Your task to perform on an android device: change notifications settings Image 0: 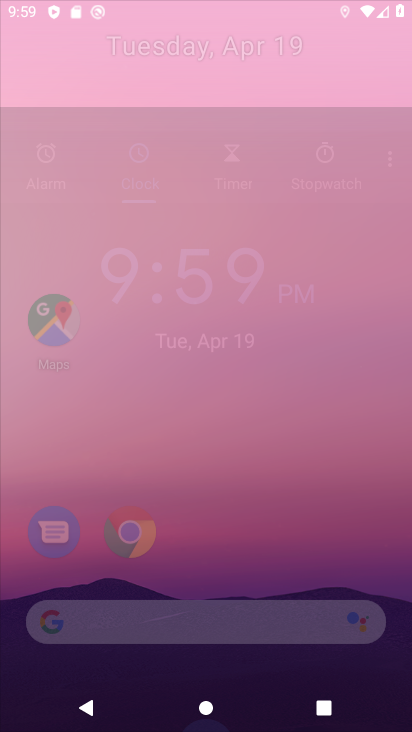
Step 0: drag from (375, 518) to (120, 83)
Your task to perform on an android device: change notifications settings Image 1: 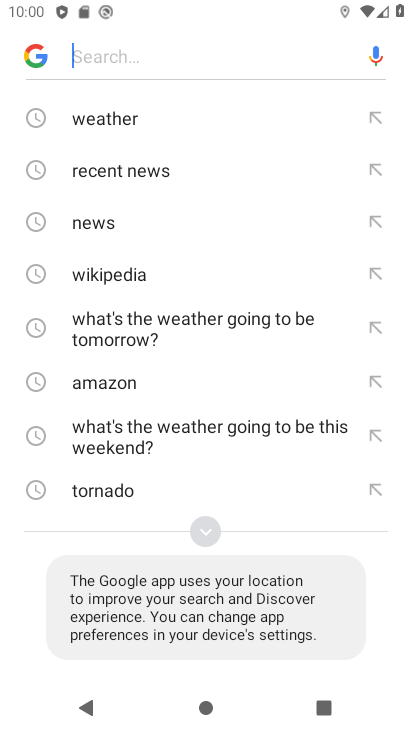
Step 1: press home button
Your task to perform on an android device: change notifications settings Image 2: 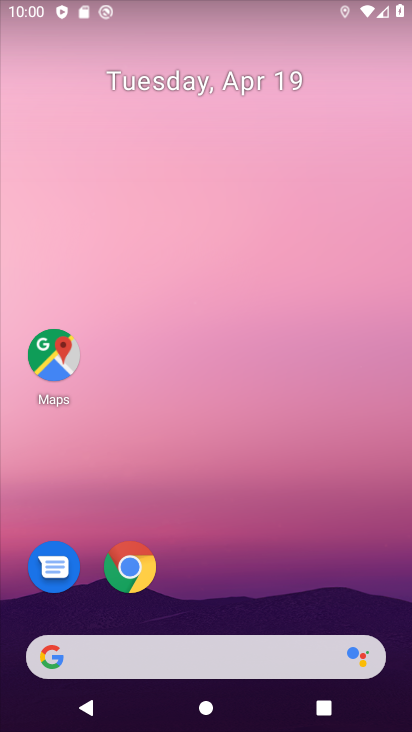
Step 2: drag from (268, 576) to (253, 153)
Your task to perform on an android device: change notifications settings Image 3: 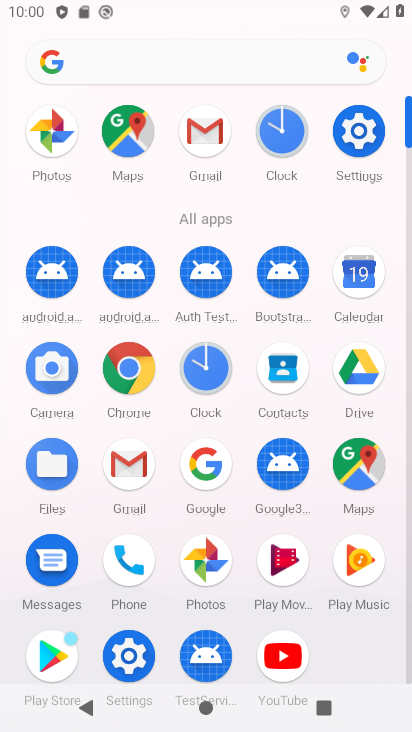
Step 3: click (354, 130)
Your task to perform on an android device: change notifications settings Image 4: 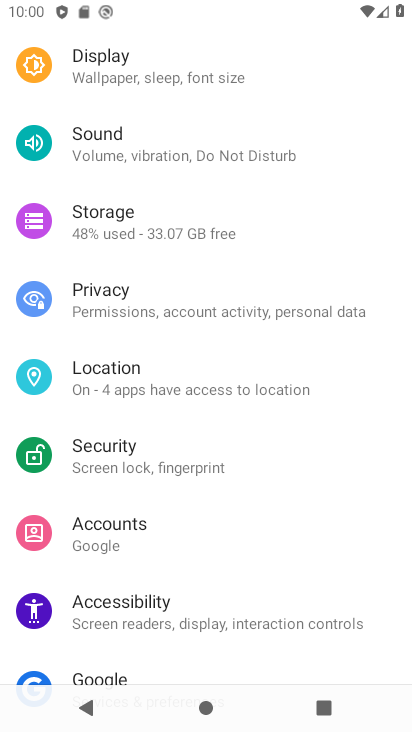
Step 4: drag from (336, 153) to (298, 627)
Your task to perform on an android device: change notifications settings Image 5: 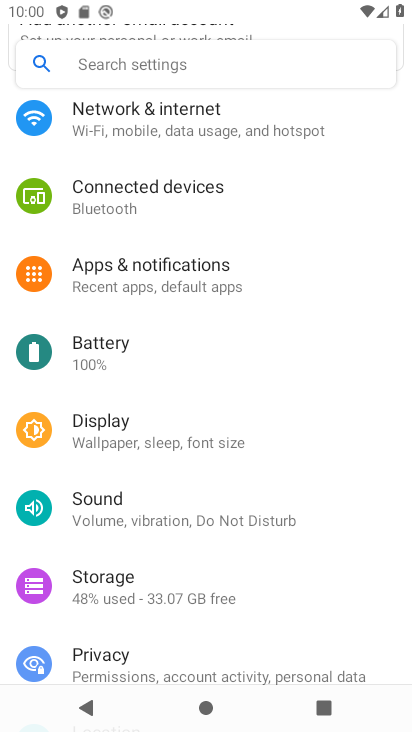
Step 5: click (255, 266)
Your task to perform on an android device: change notifications settings Image 6: 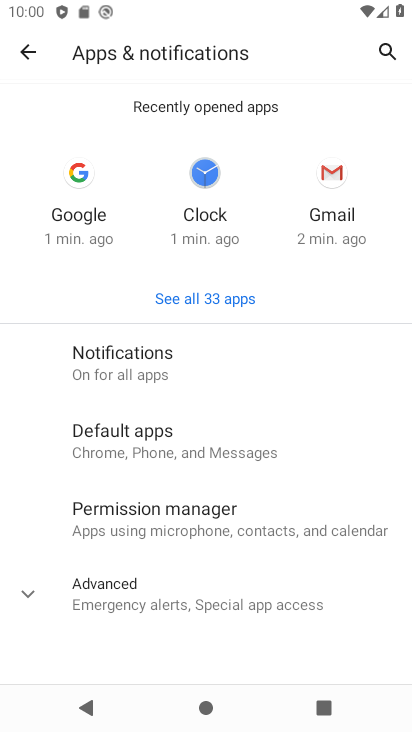
Step 6: click (265, 360)
Your task to perform on an android device: change notifications settings Image 7: 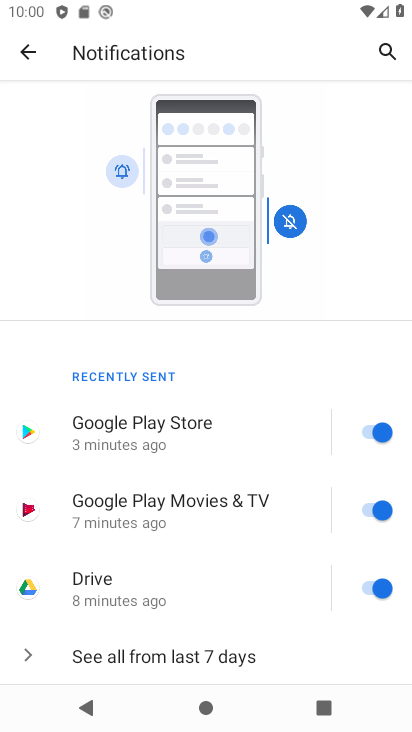
Step 7: task complete